Your task to perform on an android device: turn off javascript in the chrome app Image 0: 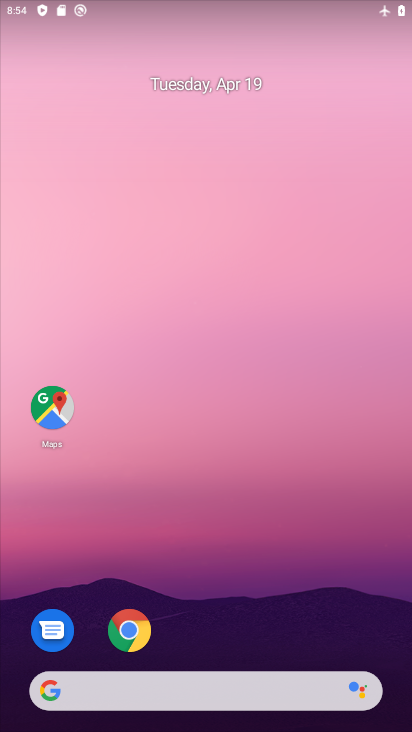
Step 0: drag from (255, 633) to (233, 179)
Your task to perform on an android device: turn off javascript in the chrome app Image 1: 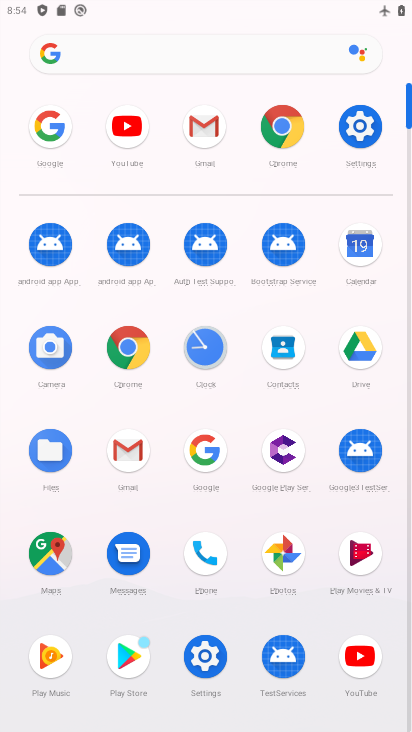
Step 1: click (289, 140)
Your task to perform on an android device: turn off javascript in the chrome app Image 2: 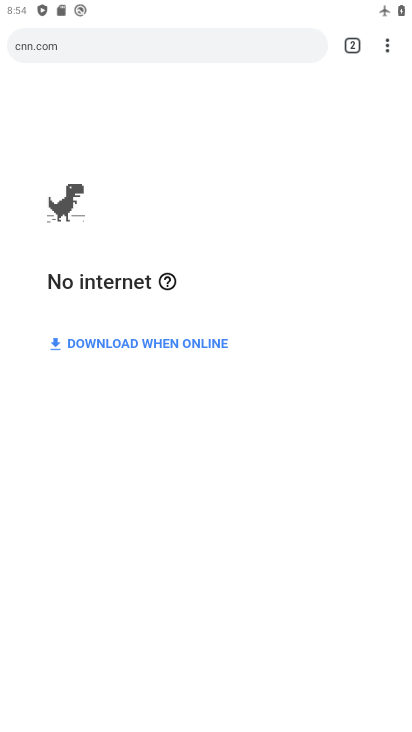
Step 2: click (387, 55)
Your task to perform on an android device: turn off javascript in the chrome app Image 3: 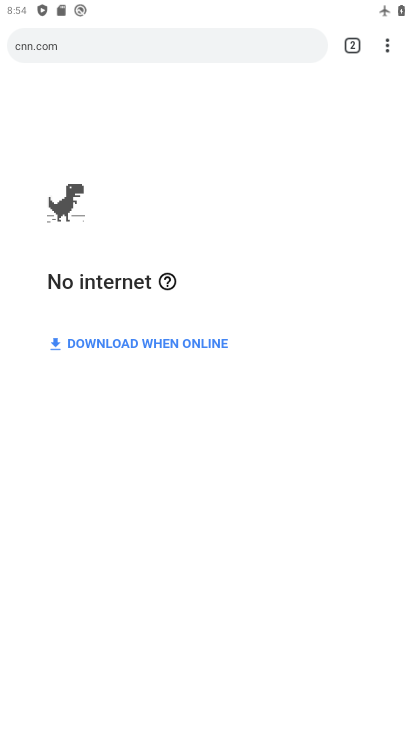
Step 3: click (379, 55)
Your task to perform on an android device: turn off javascript in the chrome app Image 4: 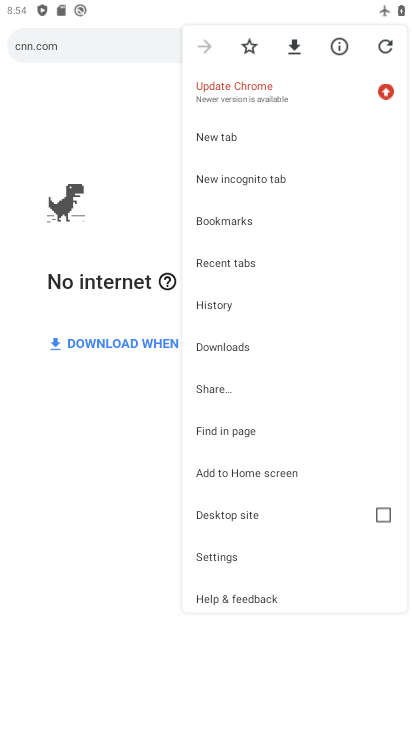
Step 4: click (243, 558)
Your task to perform on an android device: turn off javascript in the chrome app Image 5: 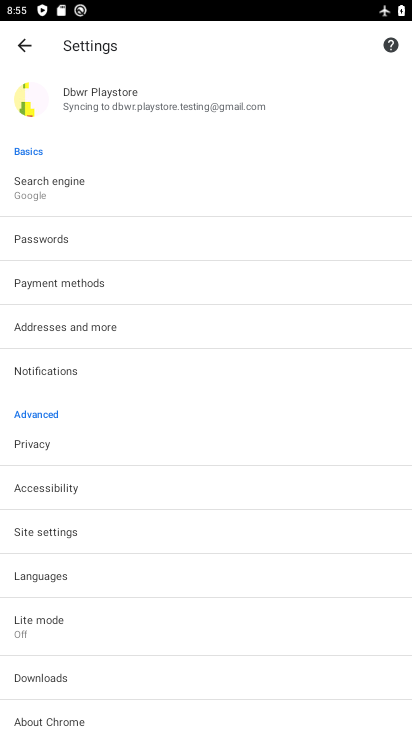
Step 5: click (120, 537)
Your task to perform on an android device: turn off javascript in the chrome app Image 6: 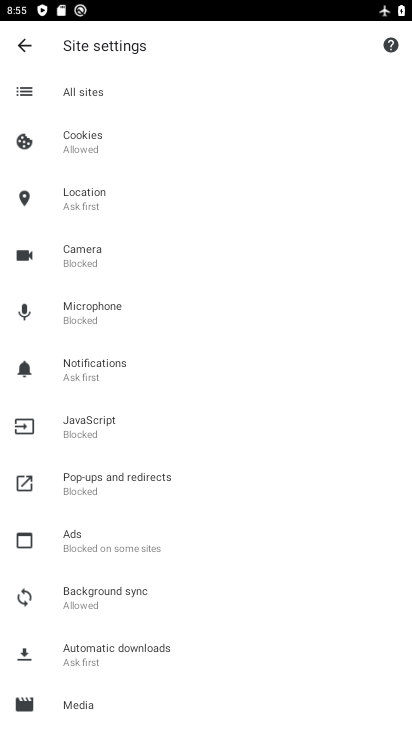
Step 6: click (104, 430)
Your task to perform on an android device: turn off javascript in the chrome app Image 7: 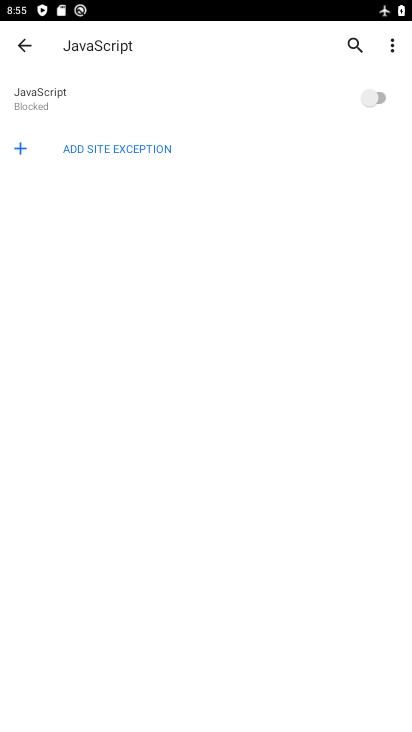
Step 7: task complete